Your task to perform on an android device: Go to accessibility settings Image 0: 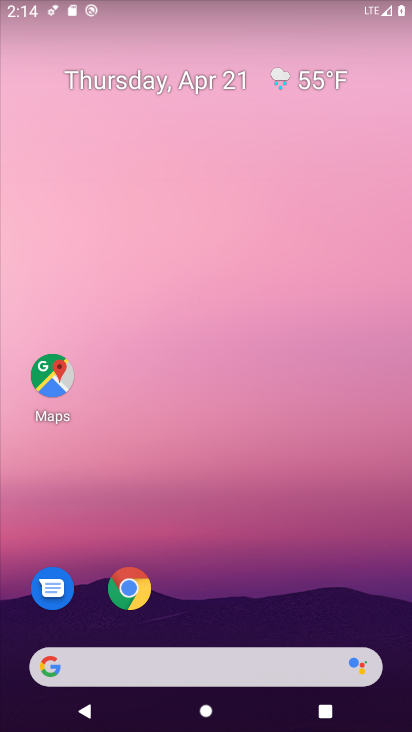
Step 0: drag from (254, 610) to (224, 12)
Your task to perform on an android device: Go to accessibility settings Image 1: 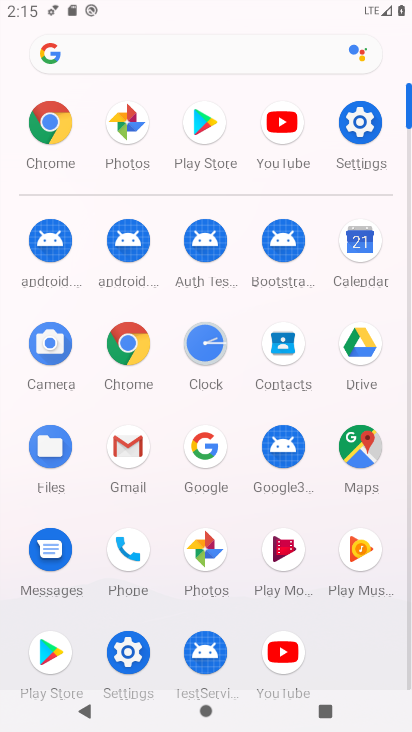
Step 1: click (344, 136)
Your task to perform on an android device: Go to accessibility settings Image 2: 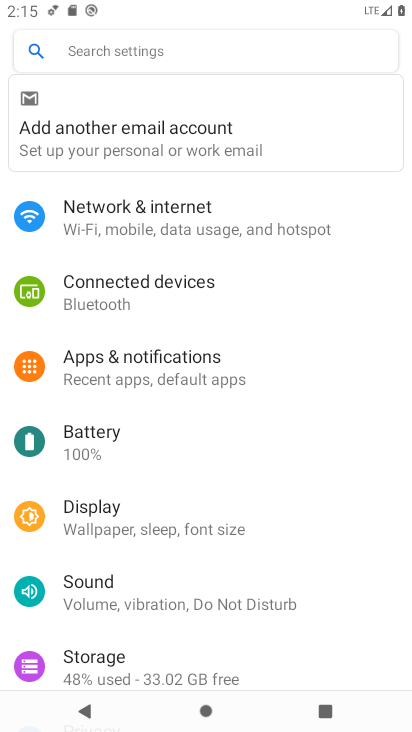
Step 2: drag from (262, 428) to (242, 300)
Your task to perform on an android device: Go to accessibility settings Image 3: 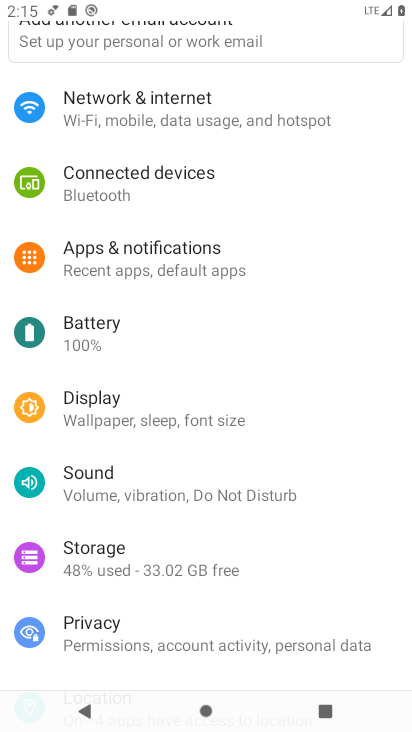
Step 3: drag from (255, 499) to (224, 412)
Your task to perform on an android device: Go to accessibility settings Image 4: 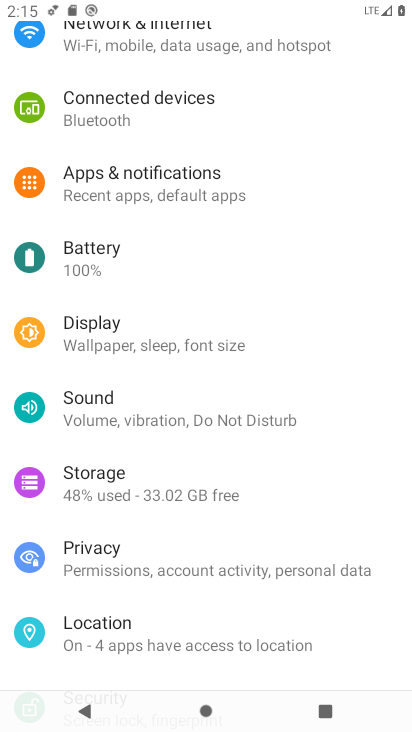
Step 4: drag from (243, 527) to (216, 435)
Your task to perform on an android device: Go to accessibility settings Image 5: 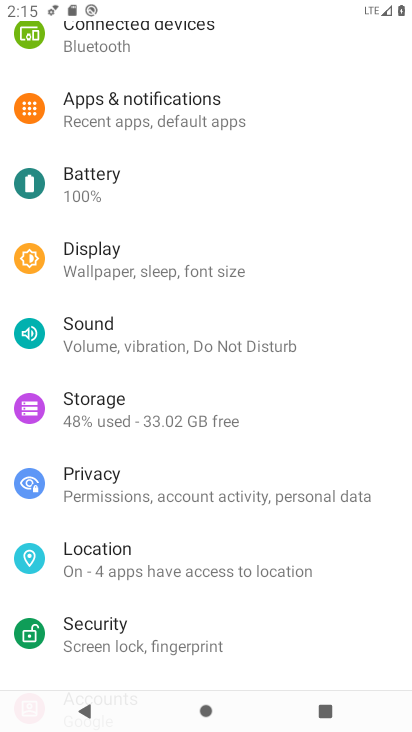
Step 5: drag from (236, 535) to (211, 440)
Your task to perform on an android device: Go to accessibility settings Image 6: 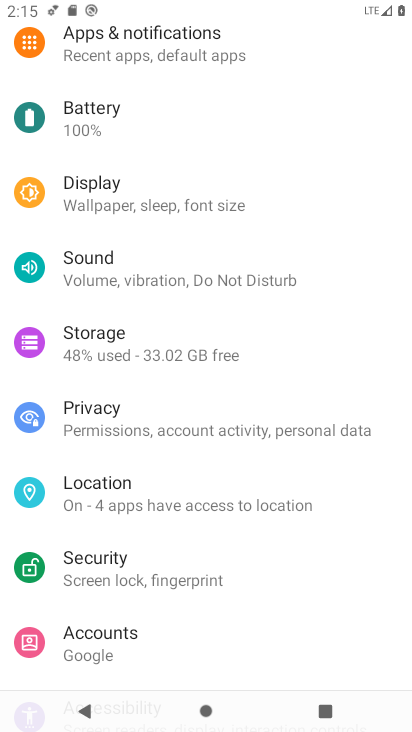
Step 6: drag from (220, 525) to (223, 453)
Your task to perform on an android device: Go to accessibility settings Image 7: 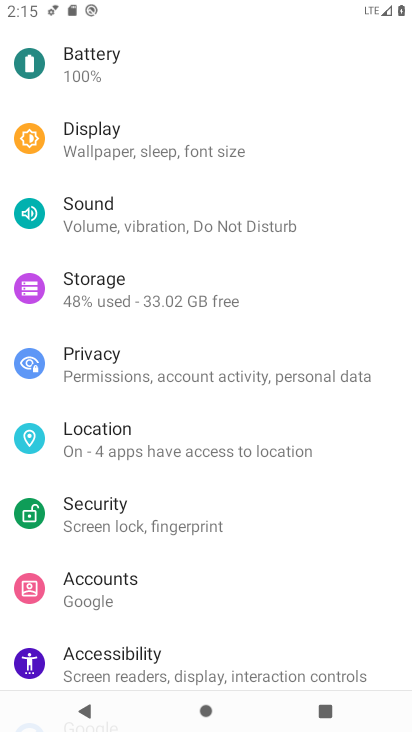
Step 7: drag from (215, 486) to (206, 428)
Your task to perform on an android device: Go to accessibility settings Image 8: 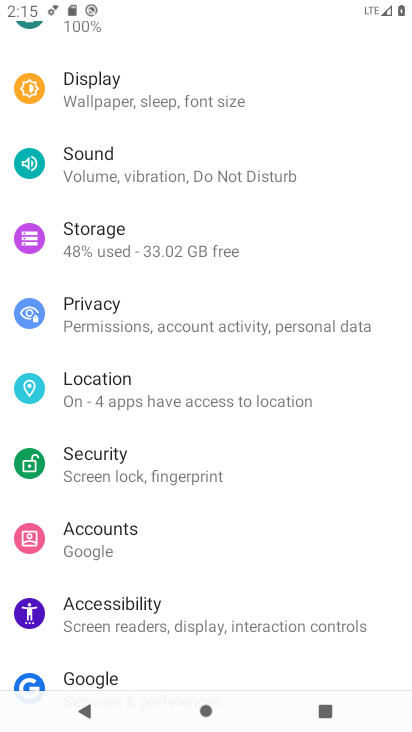
Step 8: click (181, 621)
Your task to perform on an android device: Go to accessibility settings Image 9: 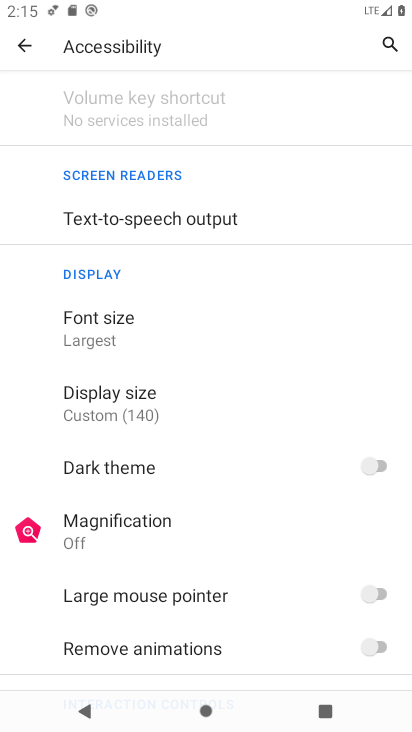
Step 9: task complete